Your task to perform on an android device: open chrome and create a bookmark for the current page Image 0: 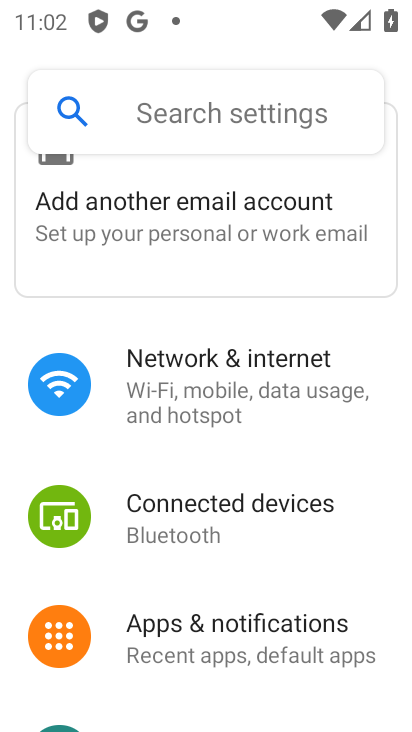
Step 0: press home button
Your task to perform on an android device: open chrome and create a bookmark for the current page Image 1: 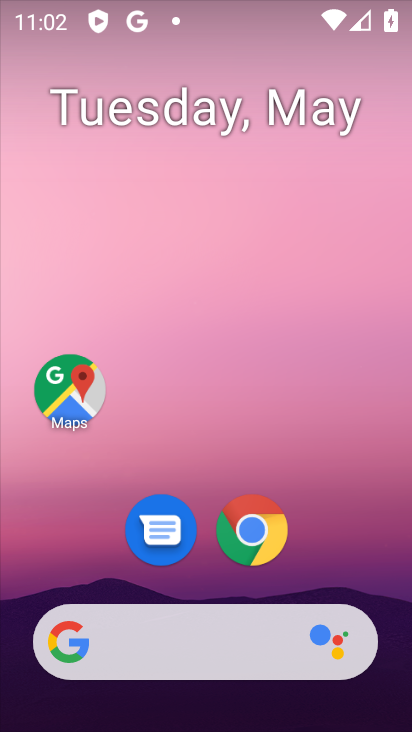
Step 1: drag from (360, 380) to (412, 75)
Your task to perform on an android device: open chrome and create a bookmark for the current page Image 2: 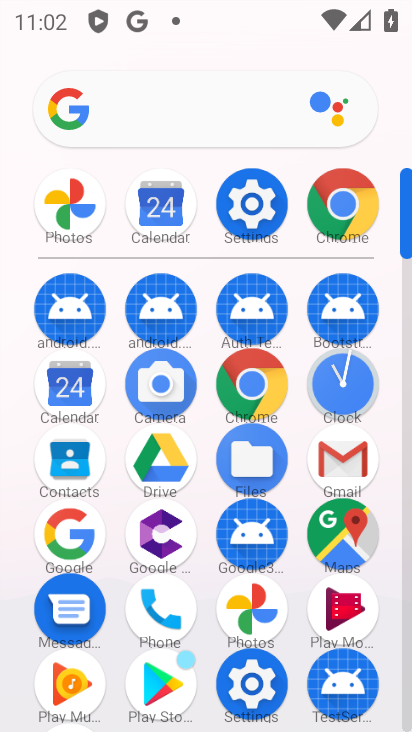
Step 2: click (343, 198)
Your task to perform on an android device: open chrome and create a bookmark for the current page Image 3: 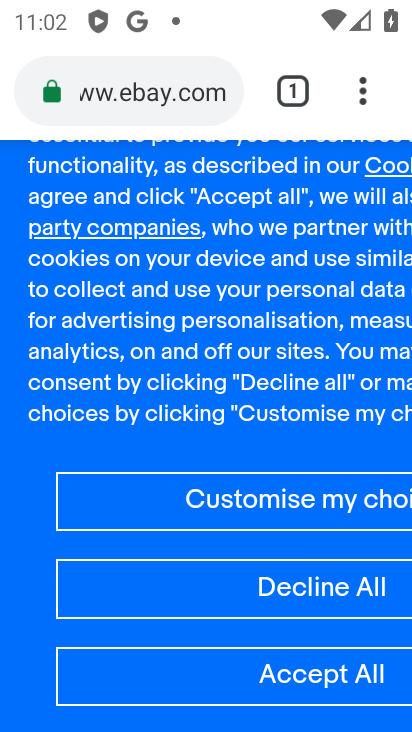
Step 3: task complete